Your task to perform on an android device: toggle airplane mode Image 0: 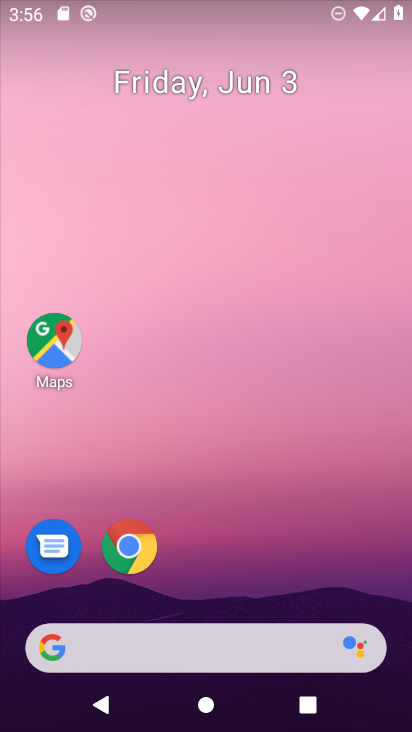
Step 0: drag from (225, 536) to (250, 0)
Your task to perform on an android device: toggle airplane mode Image 1: 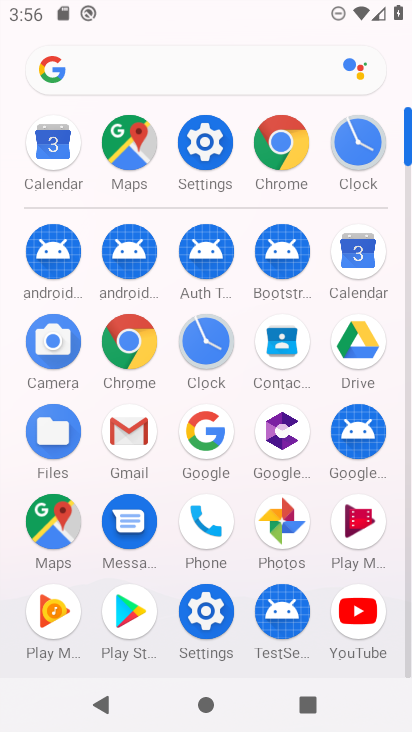
Step 1: click (214, 141)
Your task to perform on an android device: toggle airplane mode Image 2: 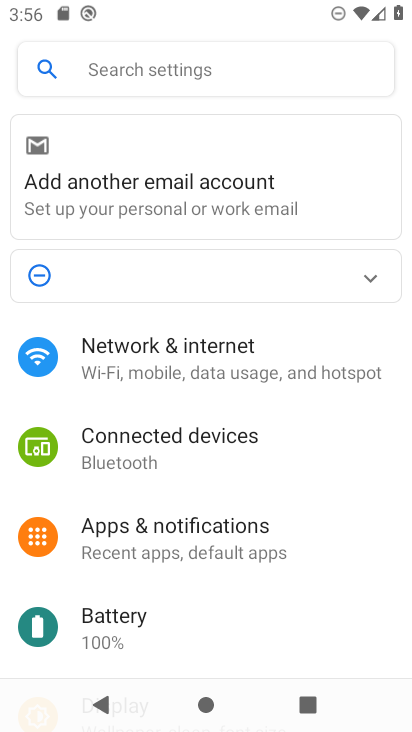
Step 2: click (204, 366)
Your task to perform on an android device: toggle airplane mode Image 3: 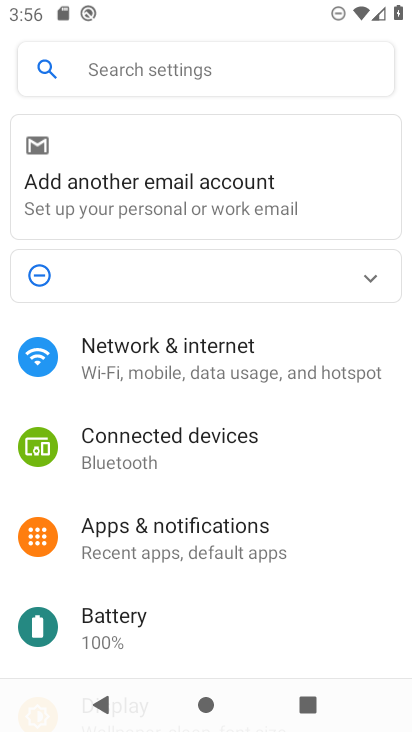
Step 3: click (204, 349)
Your task to perform on an android device: toggle airplane mode Image 4: 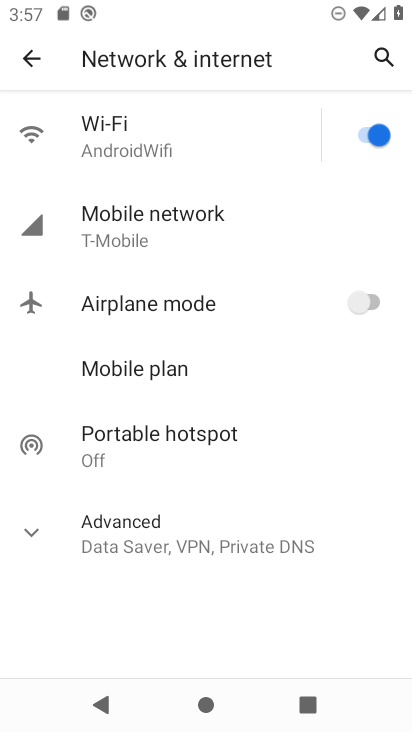
Step 4: click (358, 296)
Your task to perform on an android device: toggle airplane mode Image 5: 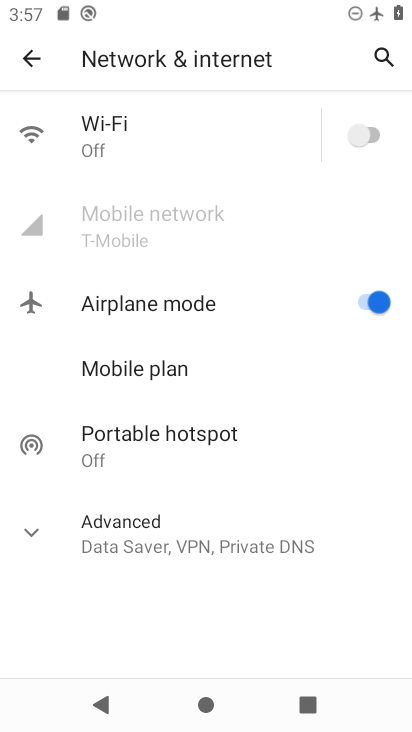
Step 5: task complete